Your task to perform on an android device: Open Chrome and go to settings Image 0: 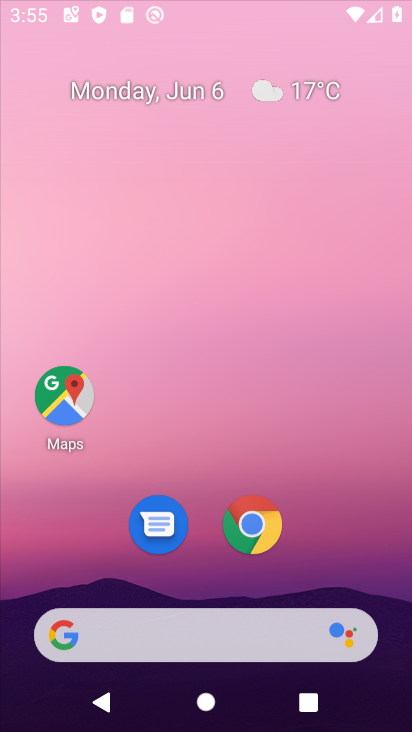
Step 0: drag from (137, 371) to (133, 191)
Your task to perform on an android device: Open Chrome and go to settings Image 1: 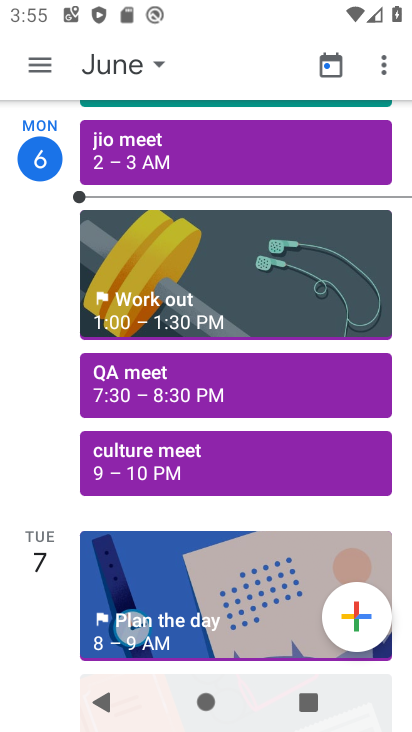
Step 1: press home button
Your task to perform on an android device: Open Chrome and go to settings Image 2: 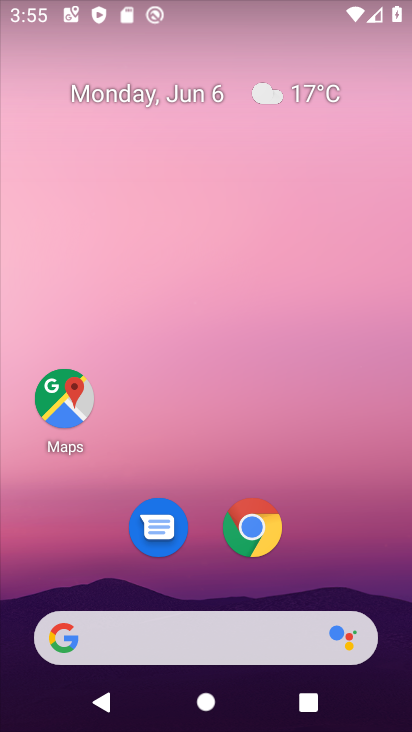
Step 2: click (246, 523)
Your task to perform on an android device: Open Chrome and go to settings Image 3: 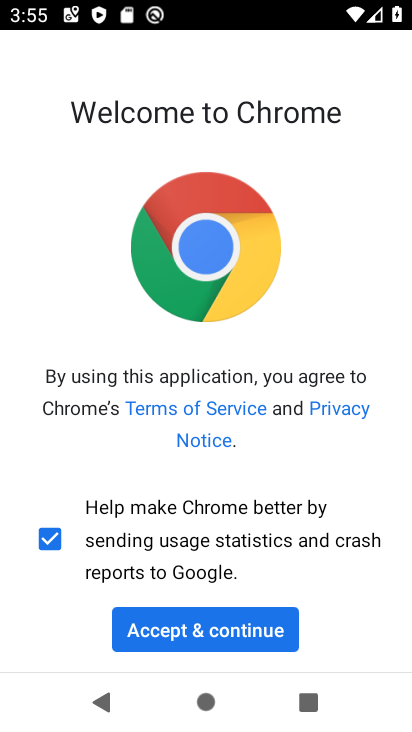
Step 3: click (216, 630)
Your task to perform on an android device: Open Chrome and go to settings Image 4: 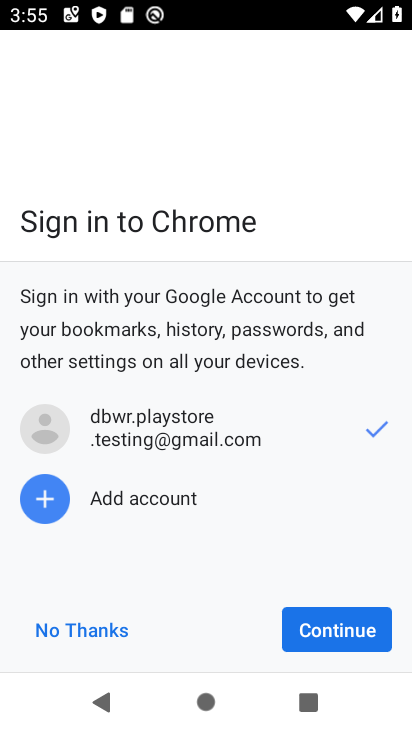
Step 4: click (316, 640)
Your task to perform on an android device: Open Chrome and go to settings Image 5: 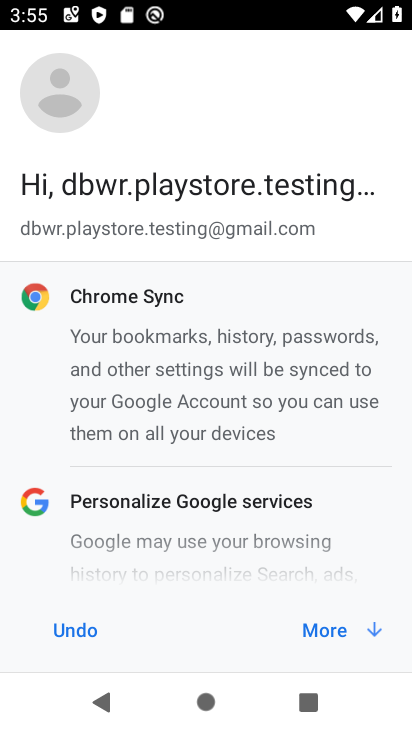
Step 5: click (308, 628)
Your task to perform on an android device: Open Chrome and go to settings Image 6: 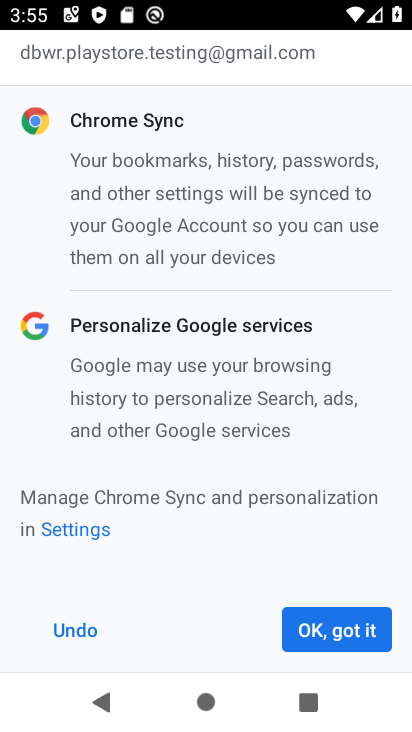
Step 6: click (308, 628)
Your task to perform on an android device: Open Chrome and go to settings Image 7: 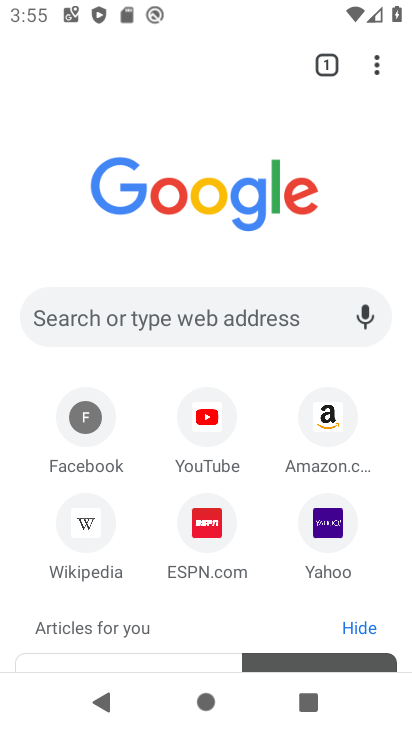
Step 7: click (379, 63)
Your task to perform on an android device: Open Chrome and go to settings Image 8: 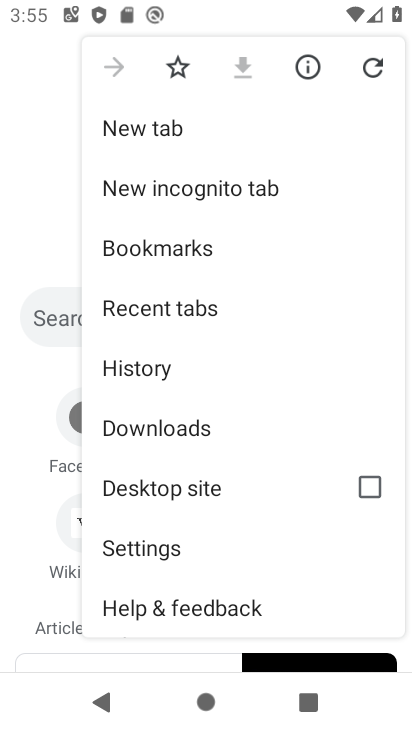
Step 8: click (154, 557)
Your task to perform on an android device: Open Chrome and go to settings Image 9: 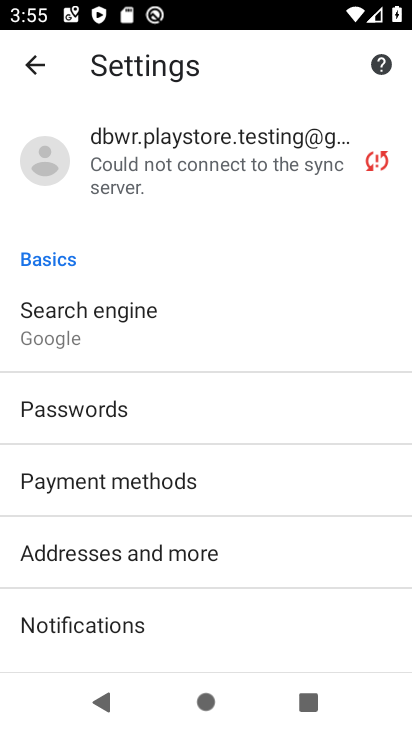
Step 9: task complete